Your task to perform on an android device: check the backup settings in the google photos Image 0: 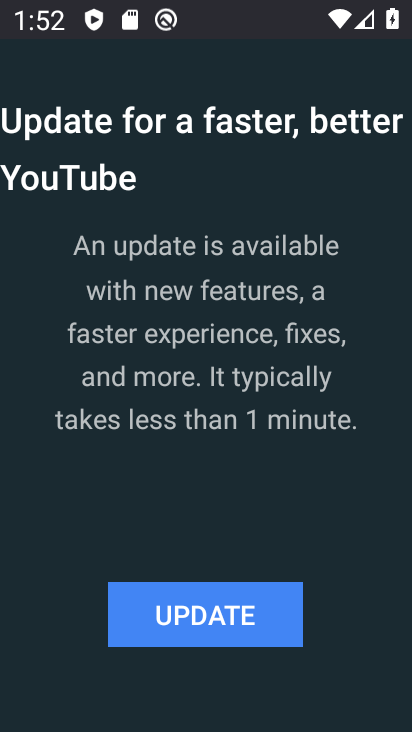
Step 0: press back button
Your task to perform on an android device: check the backup settings in the google photos Image 1: 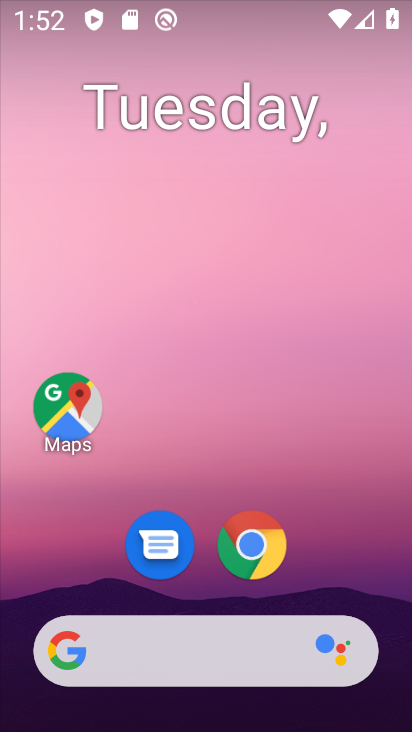
Step 1: drag from (339, 479) to (302, 54)
Your task to perform on an android device: check the backup settings in the google photos Image 2: 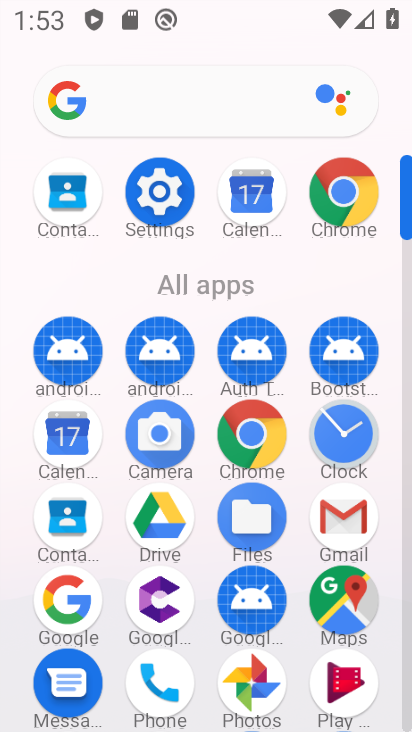
Step 2: drag from (22, 584) to (13, 298)
Your task to perform on an android device: check the backup settings in the google photos Image 3: 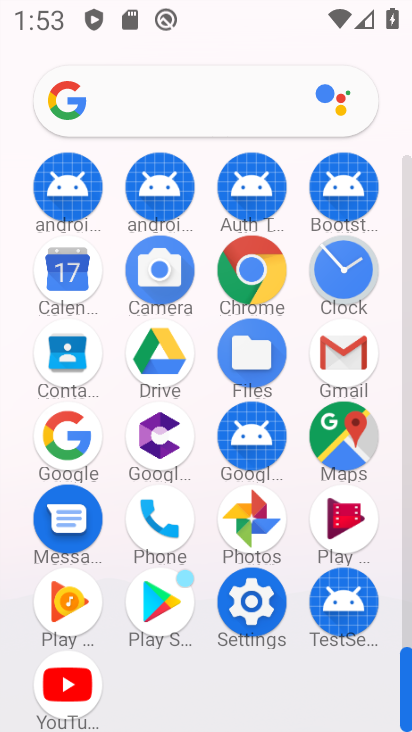
Step 3: click (252, 509)
Your task to perform on an android device: check the backup settings in the google photos Image 4: 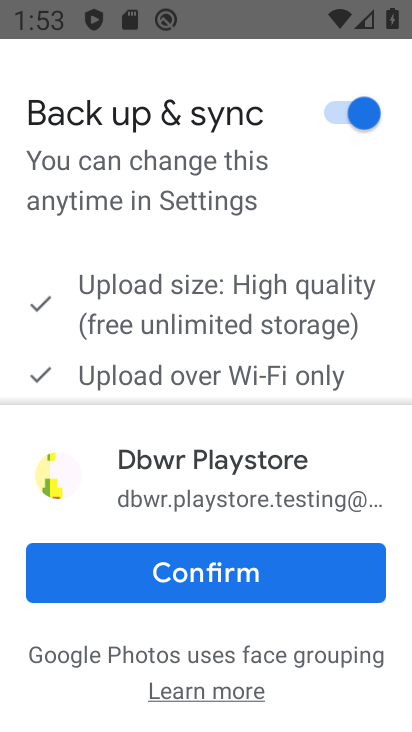
Step 4: click (233, 567)
Your task to perform on an android device: check the backup settings in the google photos Image 5: 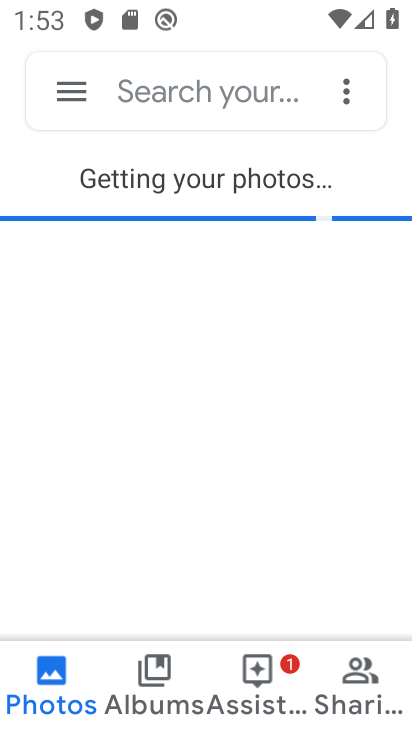
Step 5: click (64, 94)
Your task to perform on an android device: check the backup settings in the google photos Image 6: 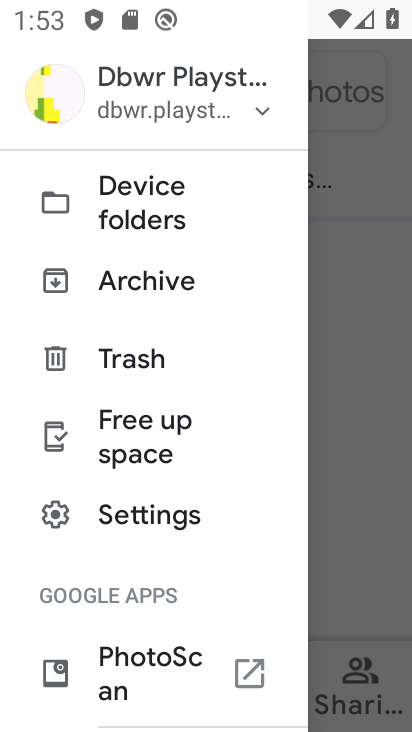
Step 6: click (123, 521)
Your task to perform on an android device: check the backup settings in the google photos Image 7: 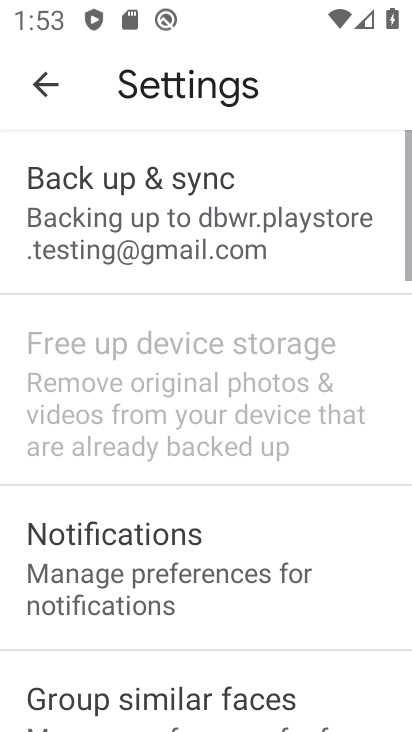
Step 7: click (176, 186)
Your task to perform on an android device: check the backup settings in the google photos Image 8: 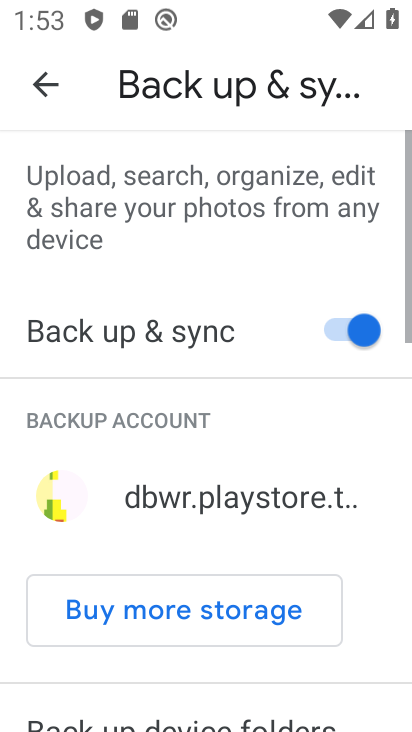
Step 8: drag from (238, 459) to (221, 164)
Your task to perform on an android device: check the backup settings in the google photos Image 9: 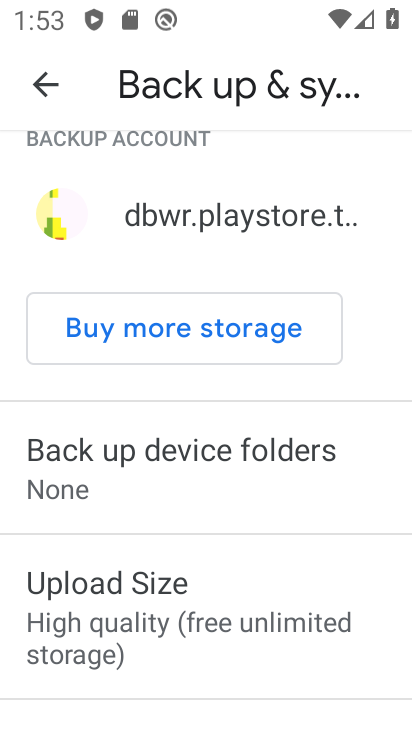
Step 9: drag from (211, 543) to (262, 162)
Your task to perform on an android device: check the backup settings in the google photos Image 10: 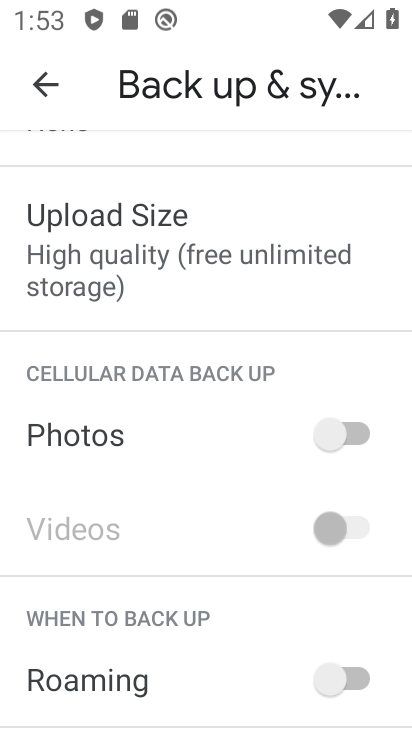
Step 10: drag from (228, 169) to (179, 583)
Your task to perform on an android device: check the backup settings in the google photos Image 11: 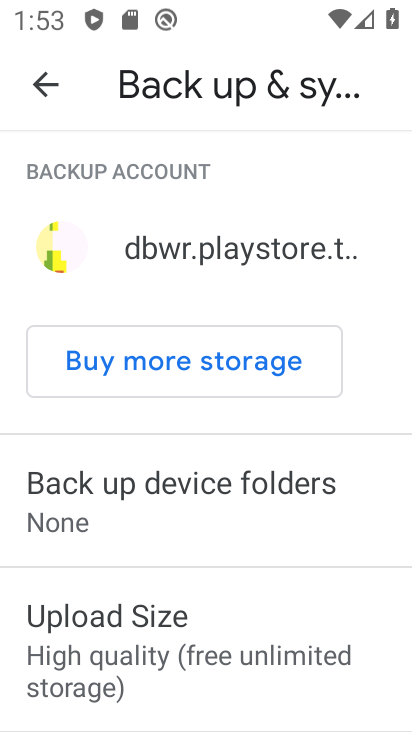
Step 11: drag from (223, 208) to (188, 621)
Your task to perform on an android device: check the backup settings in the google photos Image 12: 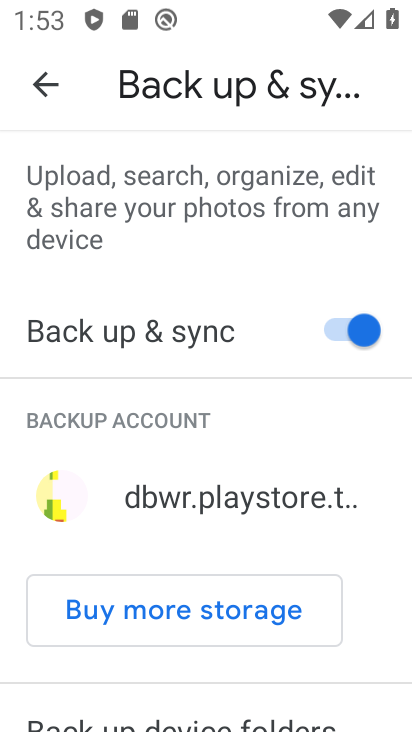
Step 12: drag from (181, 322) to (181, 563)
Your task to perform on an android device: check the backup settings in the google photos Image 13: 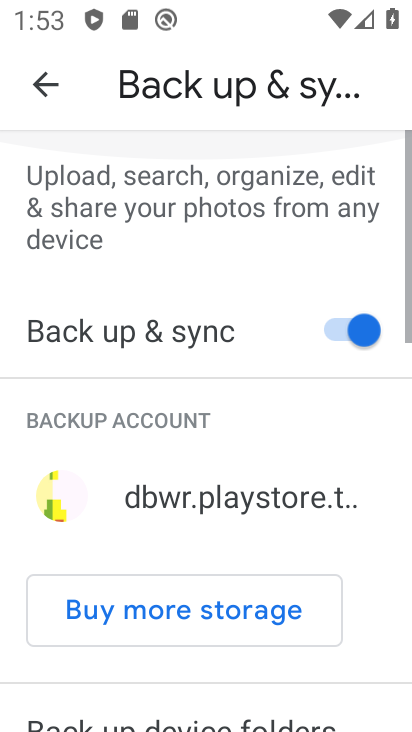
Step 13: drag from (196, 623) to (200, 238)
Your task to perform on an android device: check the backup settings in the google photos Image 14: 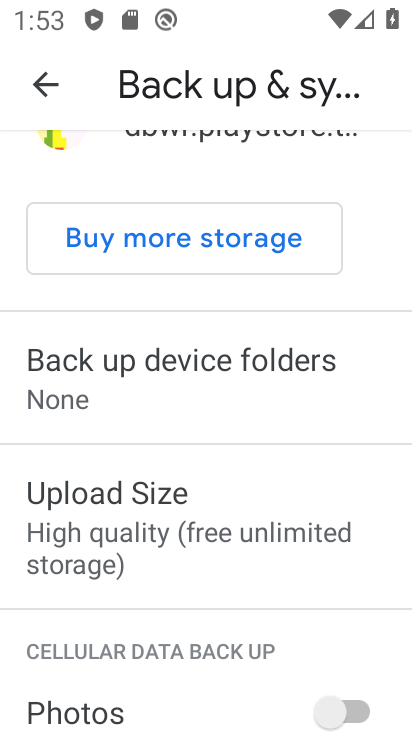
Step 14: click (166, 510)
Your task to perform on an android device: check the backup settings in the google photos Image 15: 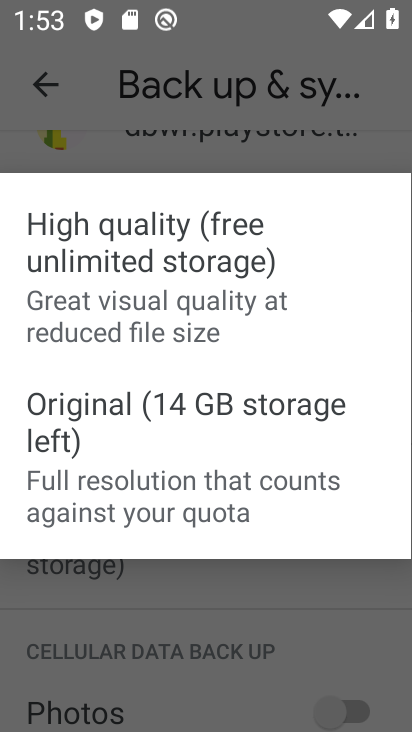
Step 15: click (145, 587)
Your task to perform on an android device: check the backup settings in the google photos Image 16: 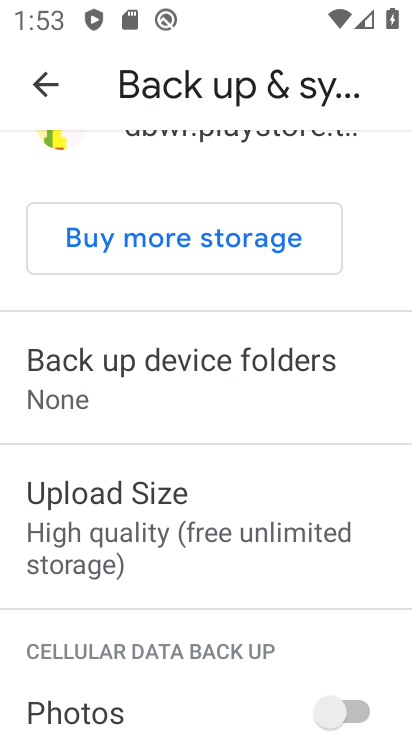
Step 16: task complete